Your task to perform on an android device: change keyboard looks Image 0: 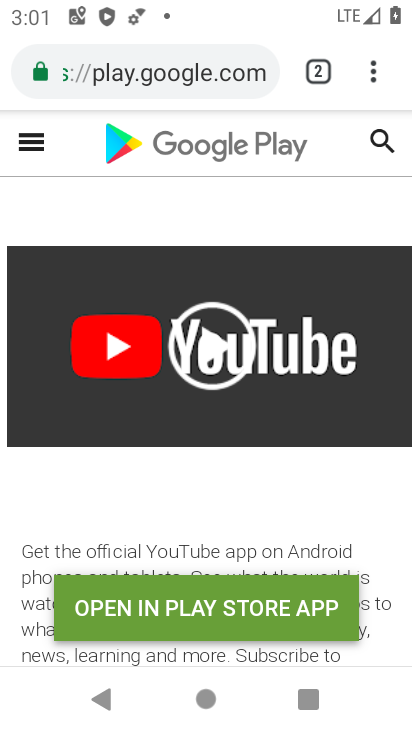
Step 0: press home button
Your task to perform on an android device: change keyboard looks Image 1: 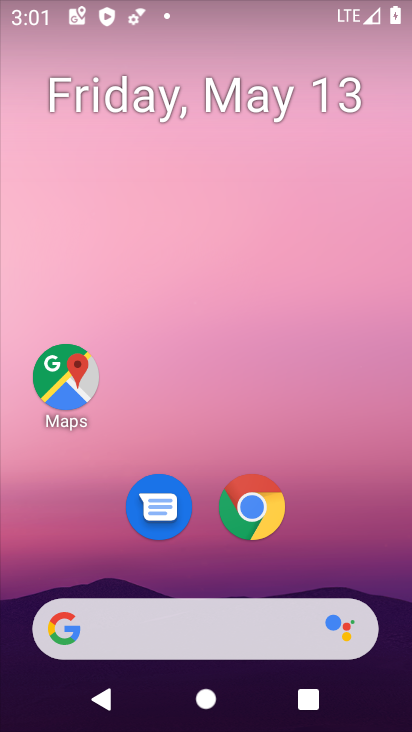
Step 1: drag from (323, 556) to (300, 22)
Your task to perform on an android device: change keyboard looks Image 2: 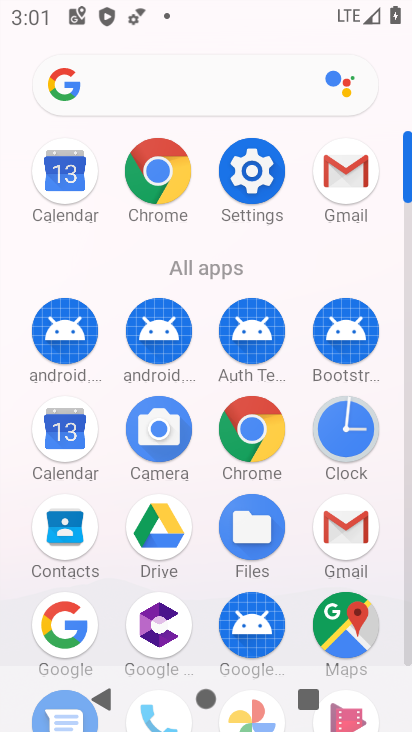
Step 2: click (258, 175)
Your task to perform on an android device: change keyboard looks Image 3: 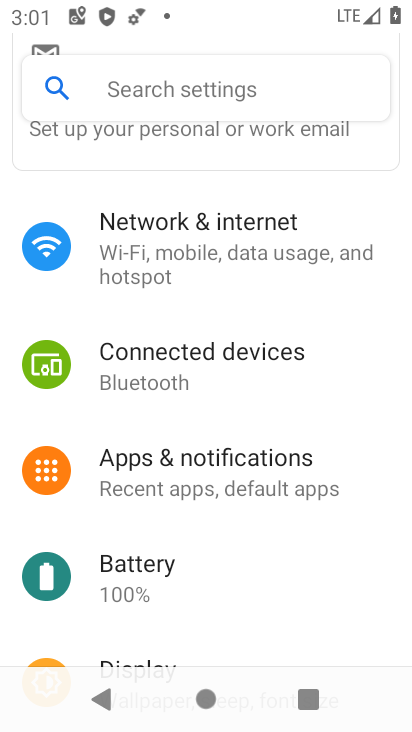
Step 3: drag from (213, 415) to (227, 108)
Your task to perform on an android device: change keyboard looks Image 4: 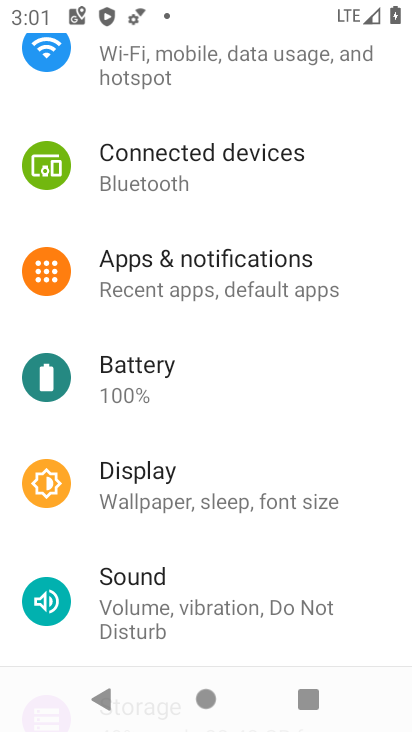
Step 4: drag from (198, 571) to (185, 215)
Your task to perform on an android device: change keyboard looks Image 5: 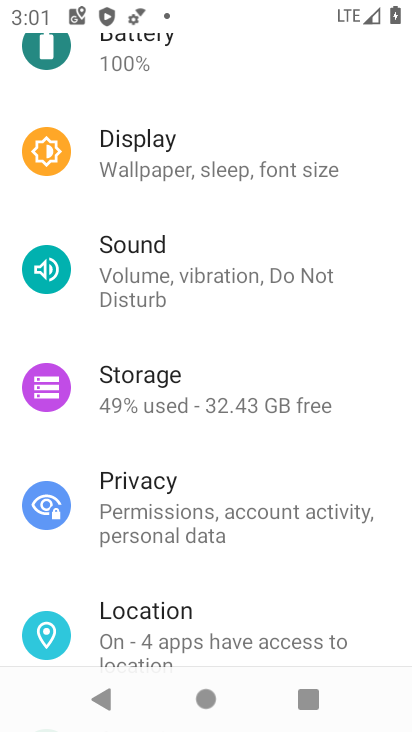
Step 5: drag from (170, 484) to (344, 8)
Your task to perform on an android device: change keyboard looks Image 6: 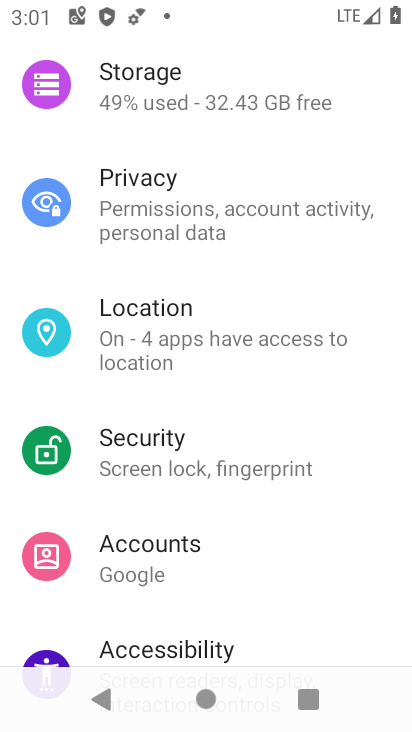
Step 6: drag from (217, 540) to (214, 16)
Your task to perform on an android device: change keyboard looks Image 7: 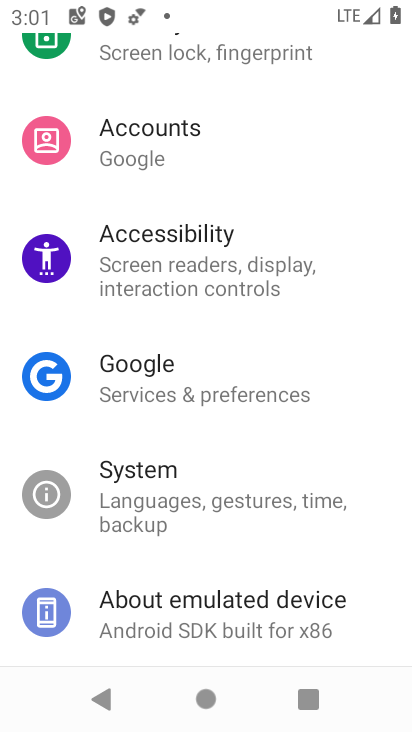
Step 7: click (168, 512)
Your task to perform on an android device: change keyboard looks Image 8: 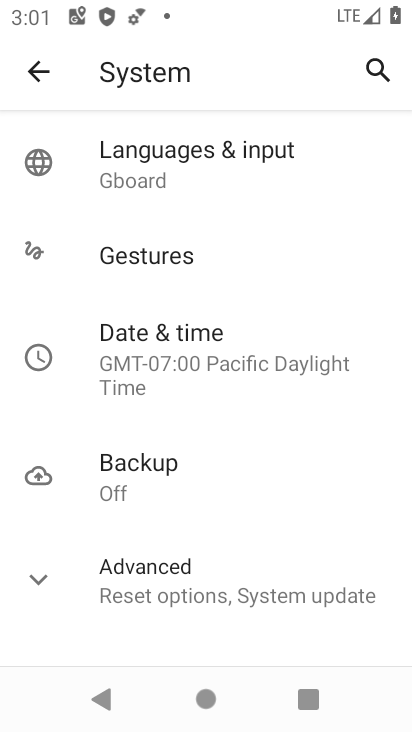
Step 8: click (164, 166)
Your task to perform on an android device: change keyboard looks Image 9: 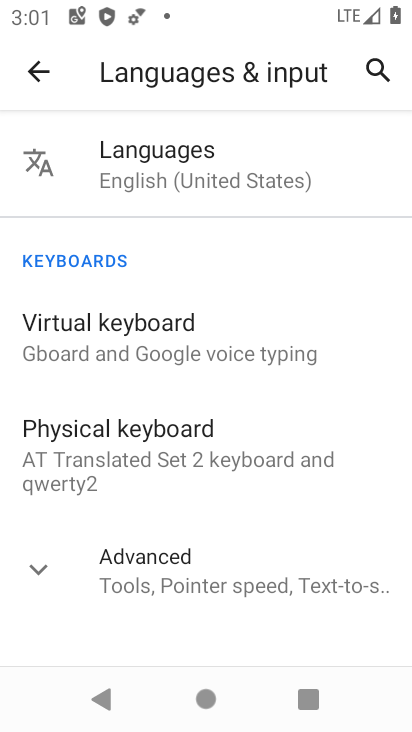
Step 9: click (170, 343)
Your task to perform on an android device: change keyboard looks Image 10: 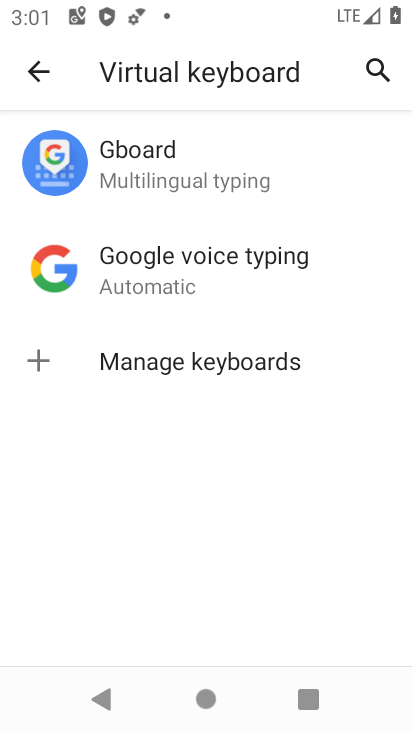
Step 10: click (203, 172)
Your task to perform on an android device: change keyboard looks Image 11: 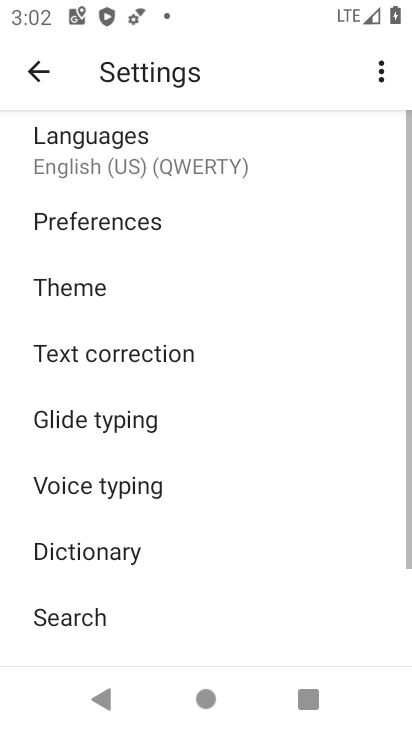
Step 11: click (61, 279)
Your task to perform on an android device: change keyboard looks Image 12: 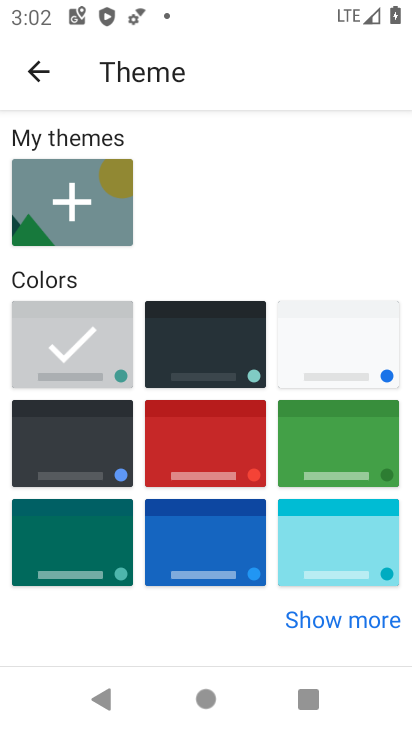
Step 12: click (111, 553)
Your task to perform on an android device: change keyboard looks Image 13: 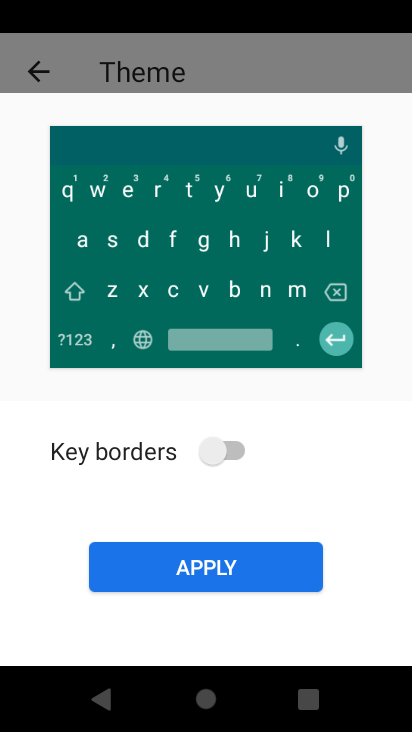
Step 13: click (168, 577)
Your task to perform on an android device: change keyboard looks Image 14: 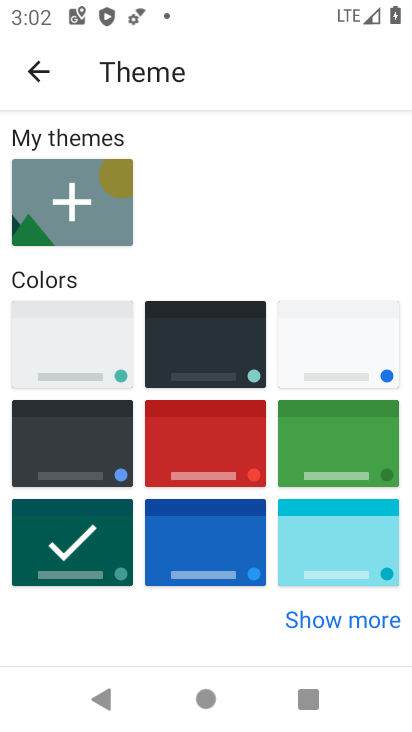
Step 14: task complete